Your task to perform on an android device: clear history in the chrome app Image 0: 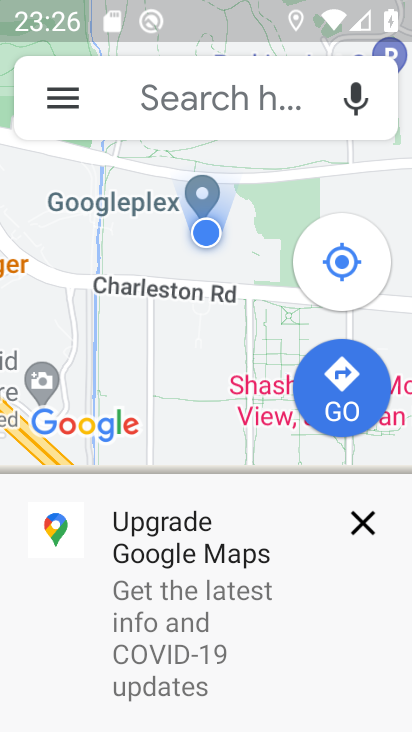
Step 0: press home button
Your task to perform on an android device: clear history in the chrome app Image 1: 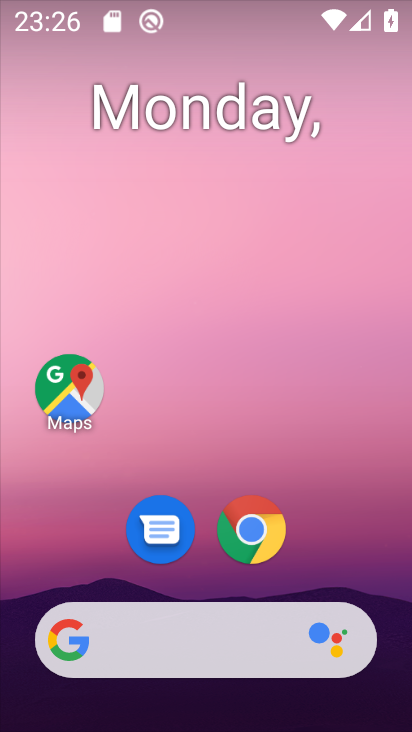
Step 1: click (249, 510)
Your task to perform on an android device: clear history in the chrome app Image 2: 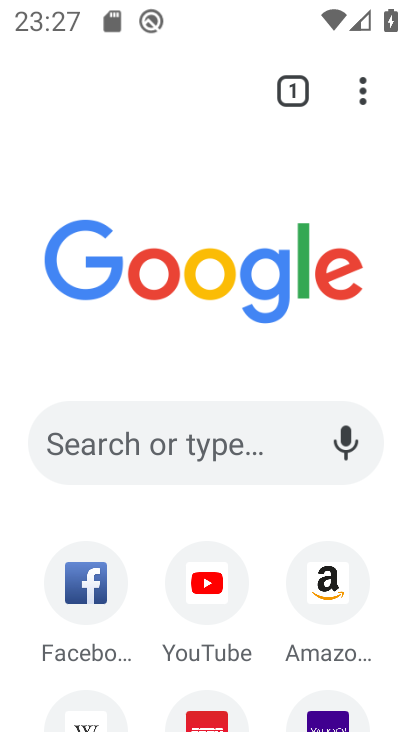
Step 2: click (368, 79)
Your task to perform on an android device: clear history in the chrome app Image 3: 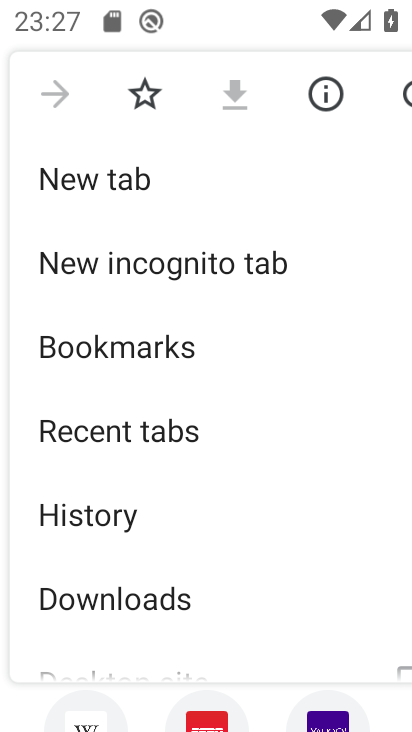
Step 3: click (98, 508)
Your task to perform on an android device: clear history in the chrome app Image 4: 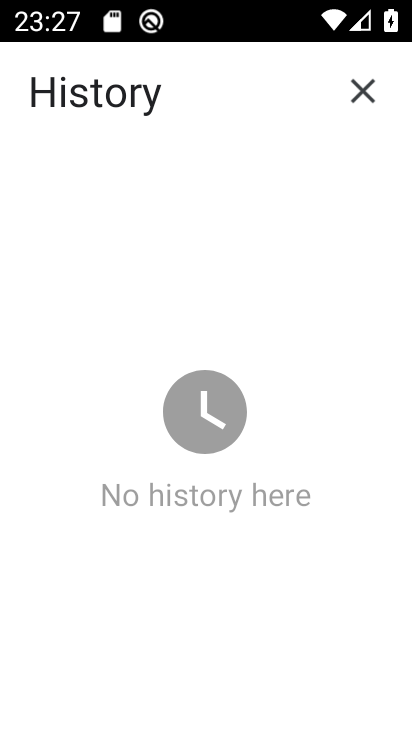
Step 4: task complete